Your task to perform on an android device: Go to CNN.com Image 0: 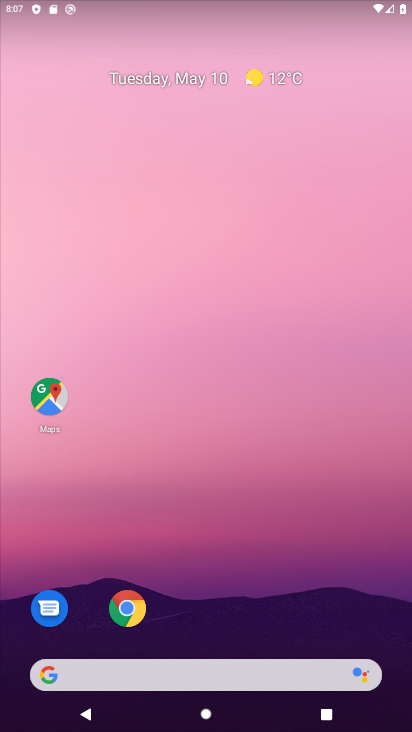
Step 0: click (122, 619)
Your task to perform on an android device: Go to CNN.com Image 1: 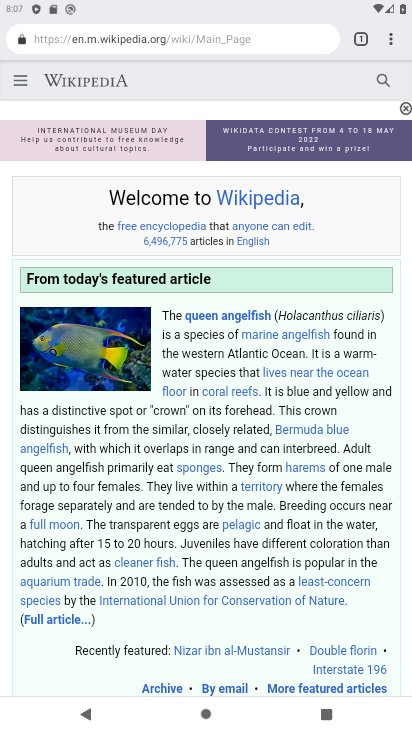
Step 1: click (183, 42)
Your task to perform on an android device: Go to CNN.com Image 2: 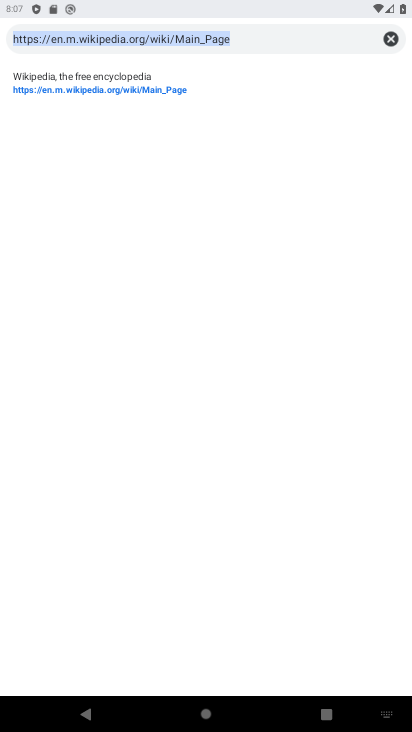
Step 2: type "cnn.com"
Your task to perform on an android device: Go to CNN.com Image 3: 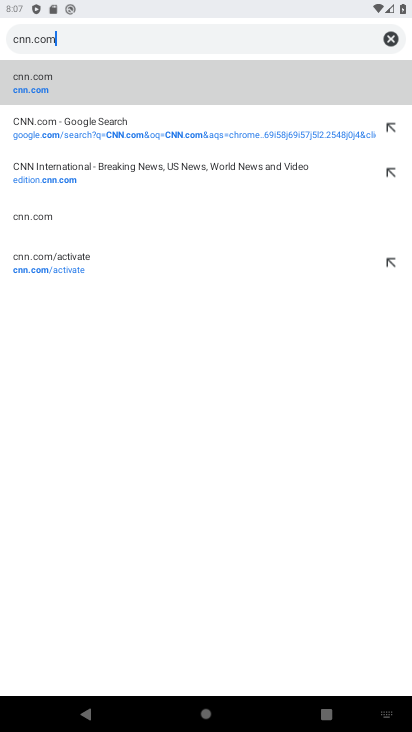
Step 3: click (238, 87)
Your task to perform on an android device: Go to CNN.com Image 4: 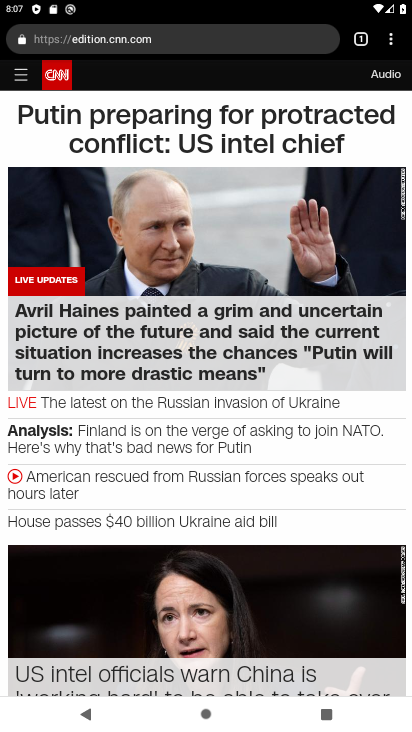
Step 4: task complete